Your task to perform on an android device: Open Google Chrome Image 0: 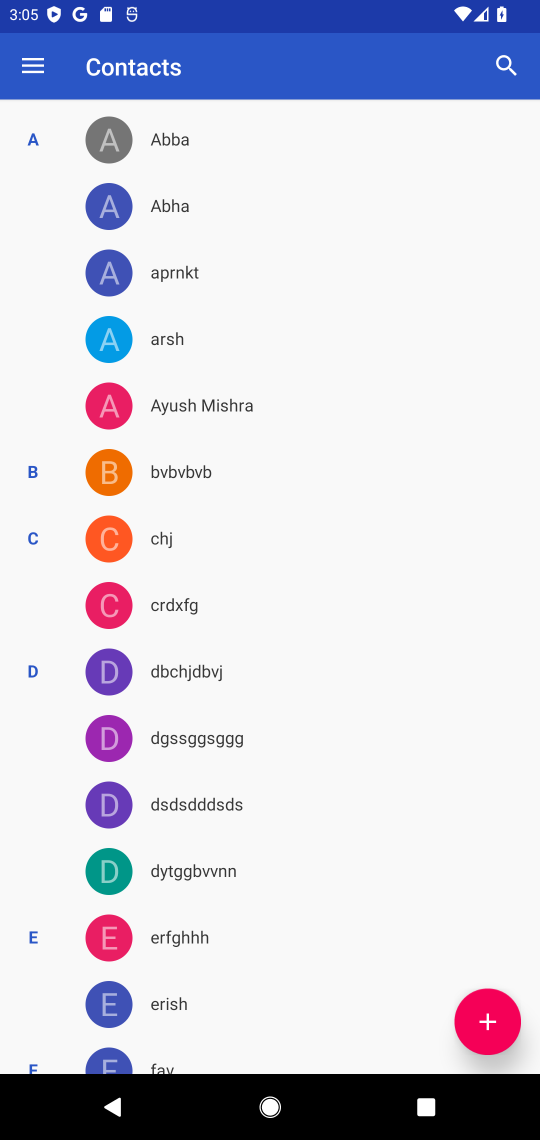
Step 0: press home button
Your task to perform on an android device: Open Google Chrome Image 1: 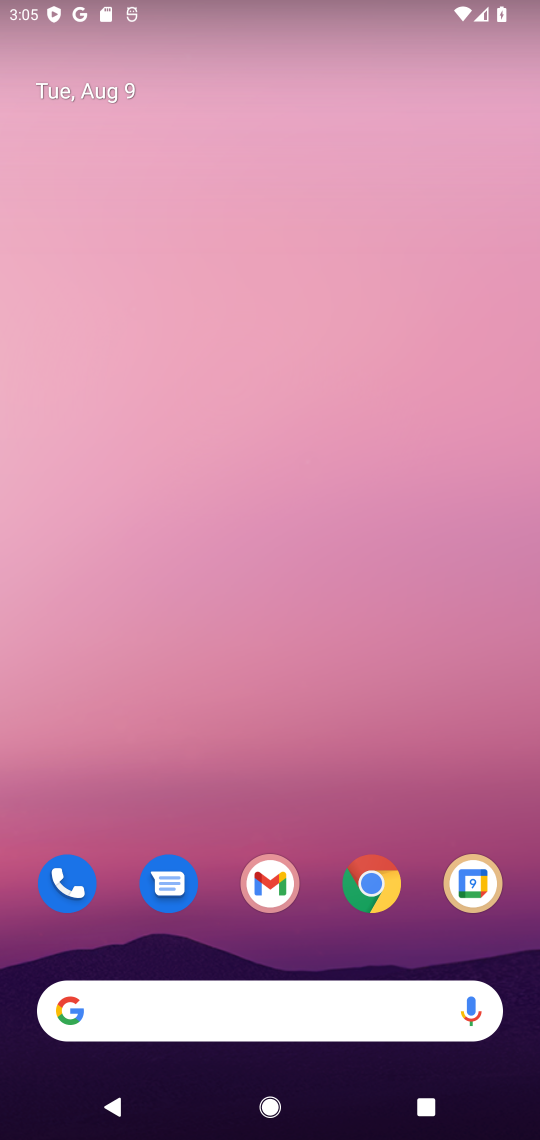
Step 1: click (368, 883)
Your task to perform on an android device: Open Google Chrome Image 2: 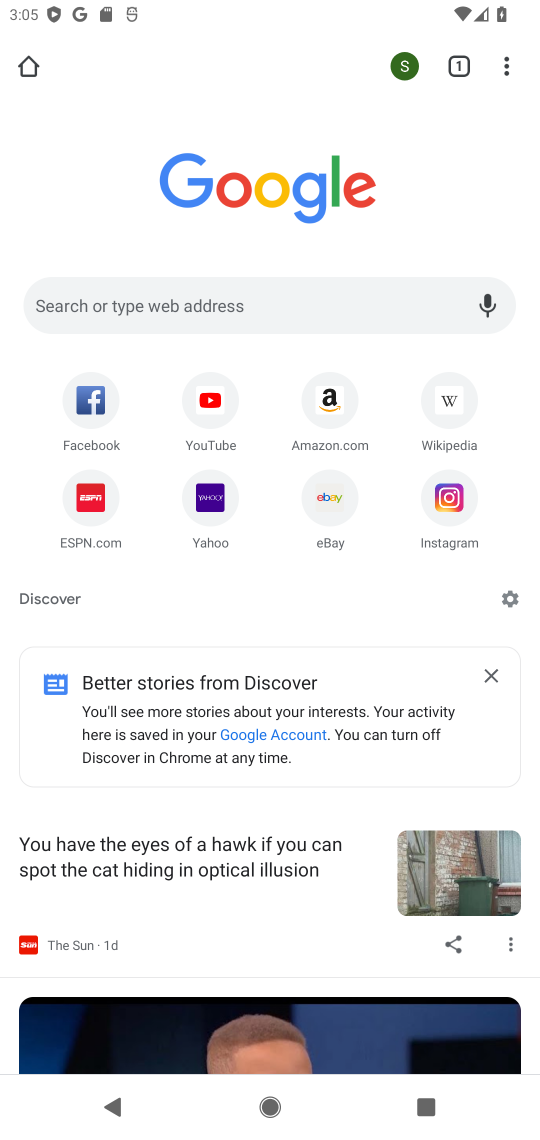
Step 2: task complete